Your task to perform on an android device: set the stopwatch Image 0: 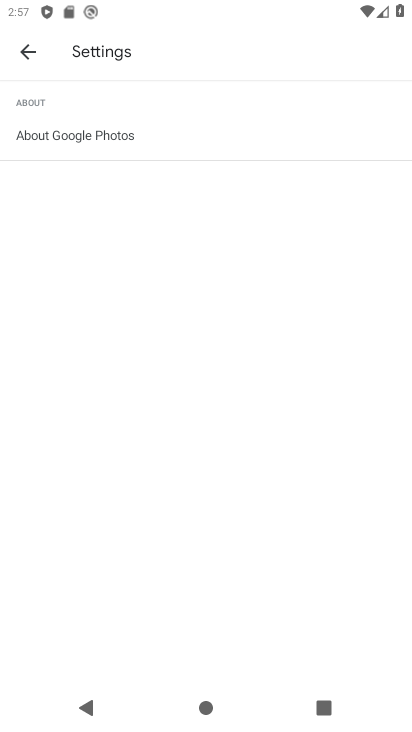
Step 0: press home button
Your task to perform on an android device: set the stopwatch Image 1: 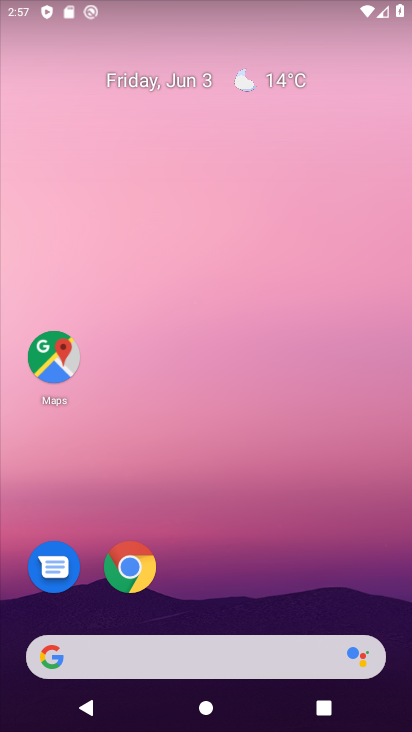
Step 1: drag from (199, 118) to (269, 12)
Your task to perform on an android device: set the stopwatch Image 2: 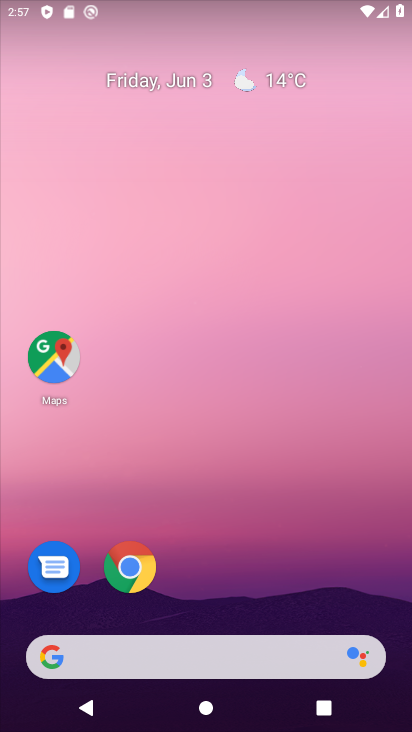
Step 2: drag from (255, 602) to (314, 8)
Your task to perform on an android device: set the stopwatch Image 3: 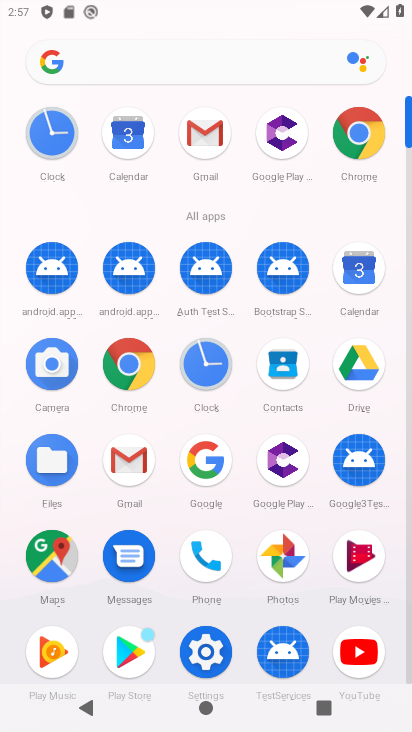
Step 3: drag from (219, 607) to (215, 7)
Your task to perform on an android device: set the stopwatch Image 4: 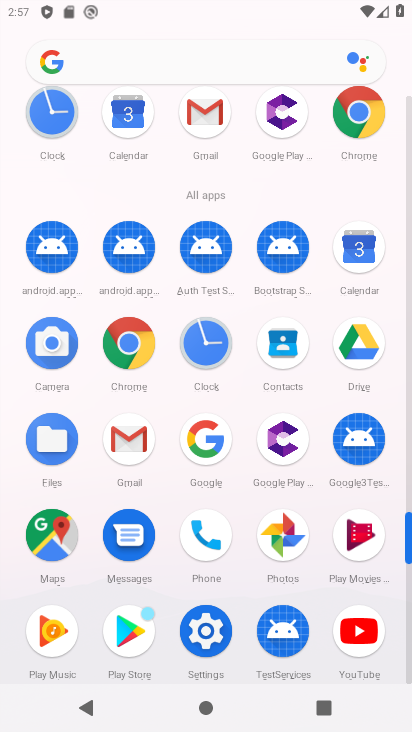
Step 4: click (205, 349)
Your task to perform on an android device: set the stopwatch Image 5: 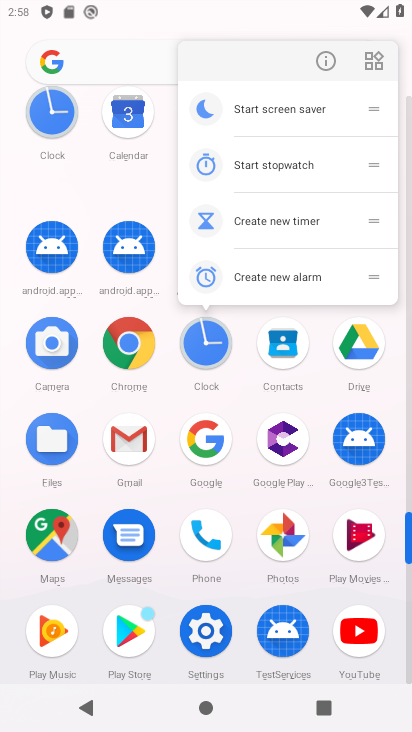
Step 5: click (205, 350)
Your task to perform on an android device: set the stopwatch Image 6: 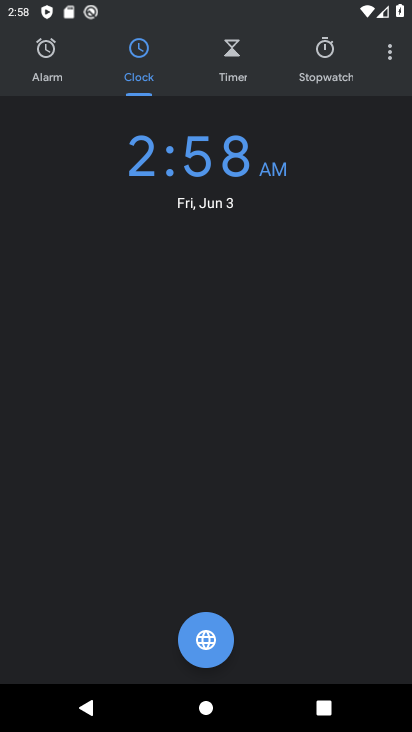
Step 6: click (328, 75)
Your task to perform on an android device: set the stopwatch Image 7: 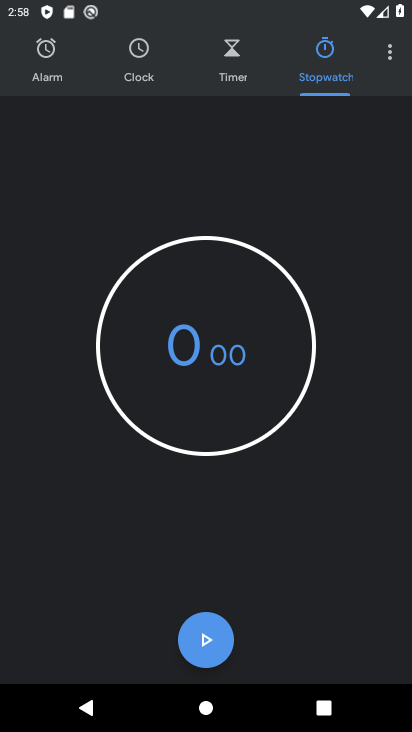
Step 7: click (214, 658)
Your task to perform on an android device: set the stopwatch Image 8: 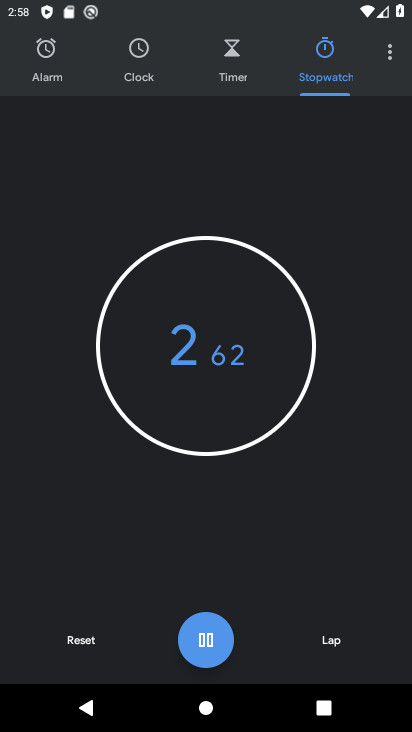
Step 8: task complete